Your task to perform on an android device: Search for good BBQ restaurants Image 0: 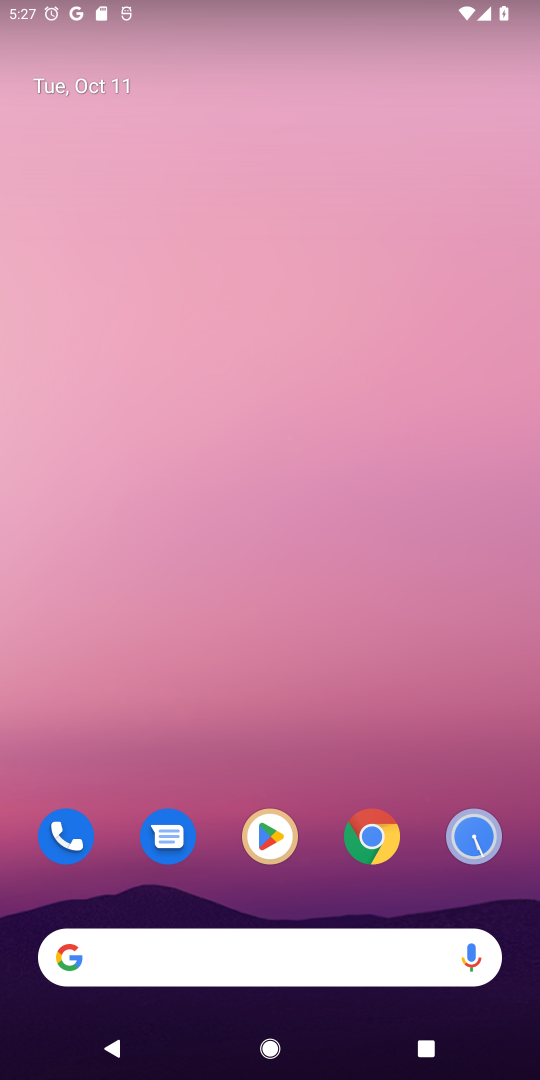
Step 0: click (210, 941)
Your task to perform on an android device: Search for good BBQ restaurants Image 1: 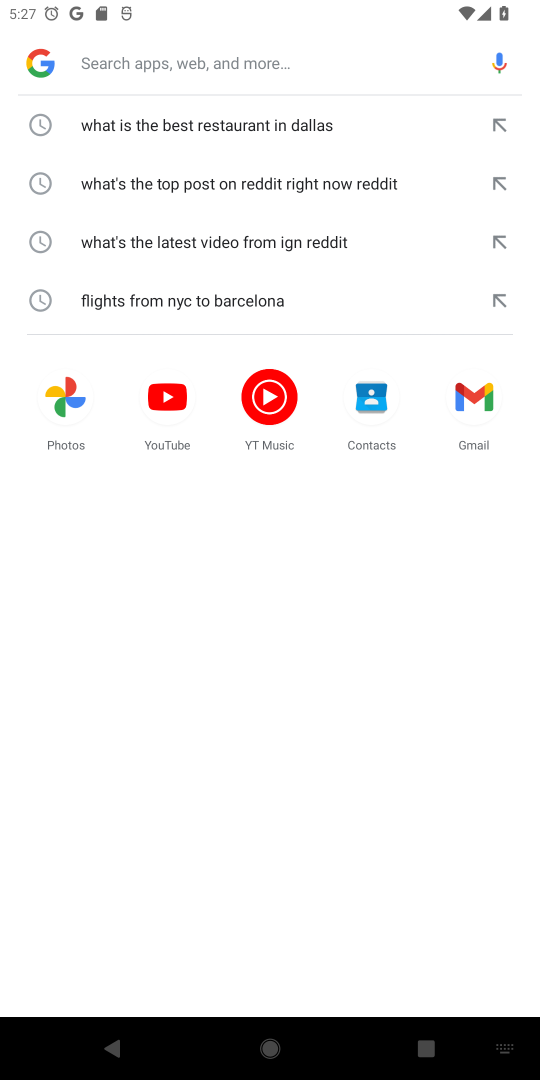
Step 1: type "Search for good BBQ restaurants"
Your task to perform on an android device: Search for good BBQ restaurants Image 2: 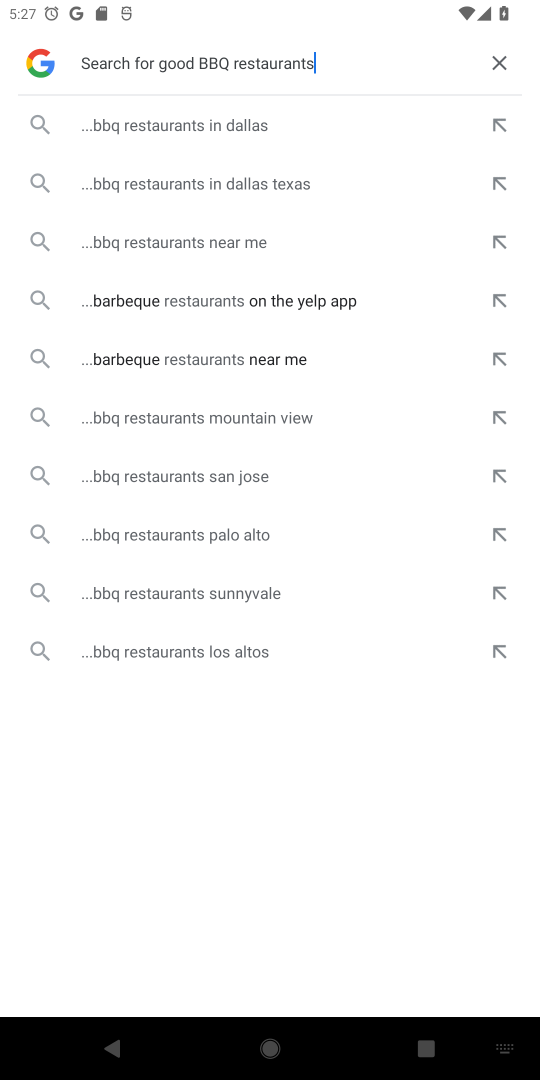
Step 2: click (93, 118)
Your task to perform on an android device: Search for good BBQ restaurants Image 3: 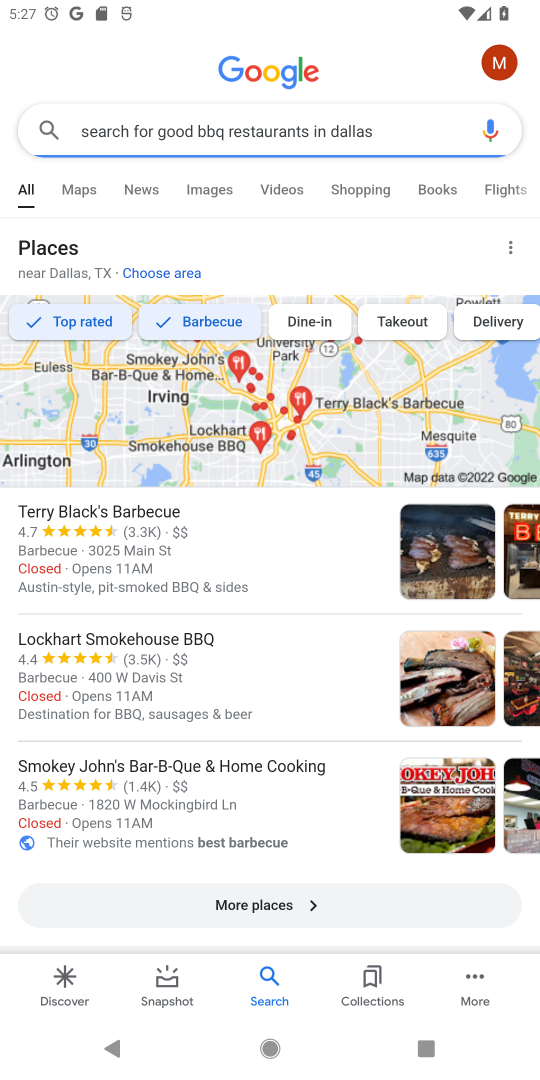
Step 3: task complete